Your task to perform on an android device: add a contact in the contacts app Image 0: 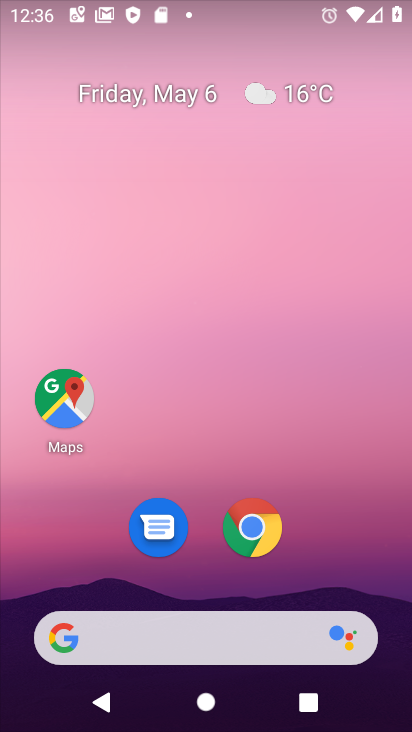
Step 0: drag from (325, 545) to (54, 113)
Your task to perform on an android device: add a contact in the contacts app Image 1: 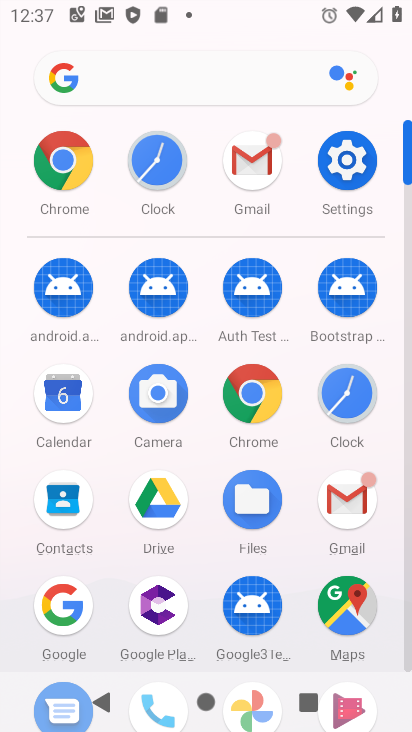
Step 1: click (70, 497)
Your task to perform on an android device: add a contact in the contacts app Image 2: 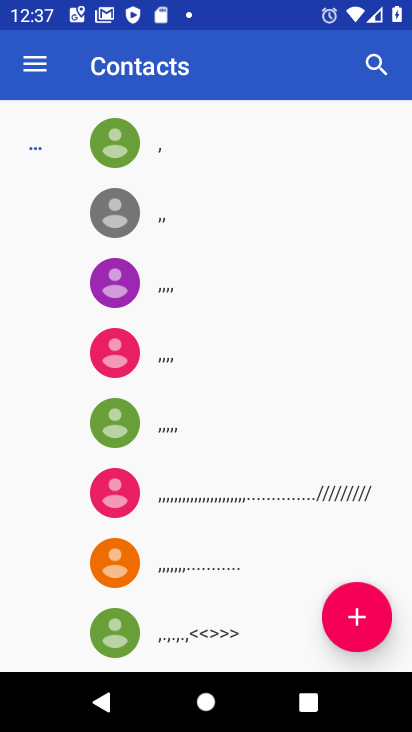
Step 2: click (356, 608)
Your task to perform on an android device: add a contact in the contacts app Image 3: 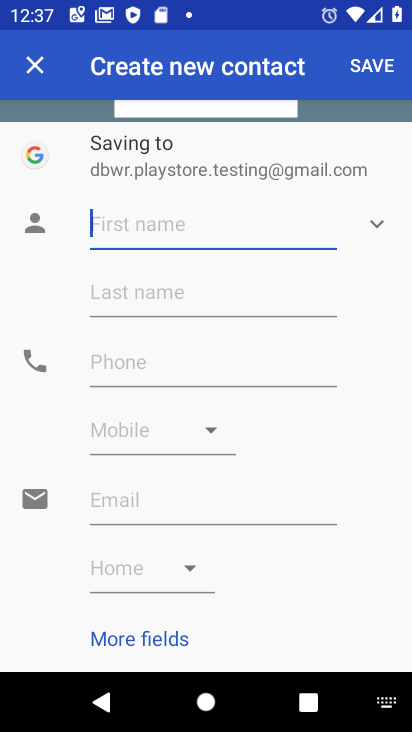
Step 3: click (145, 226)
Your task to perform on an android device: add a contact in the contacts app Image 4: 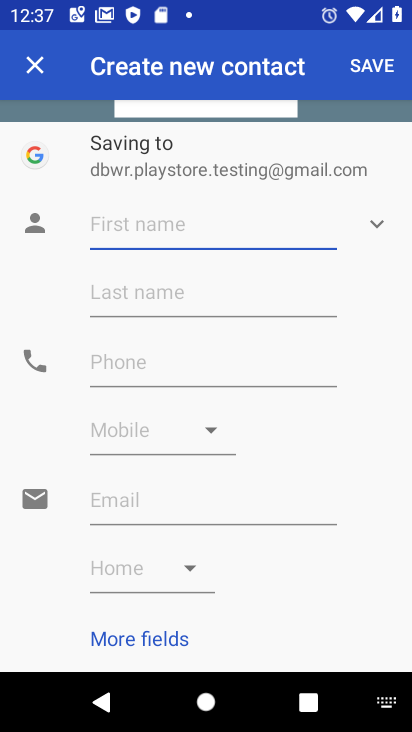
Step 4: type "miniso"
Your task to perform on an android device: add a contact in the contacts app Image 5: 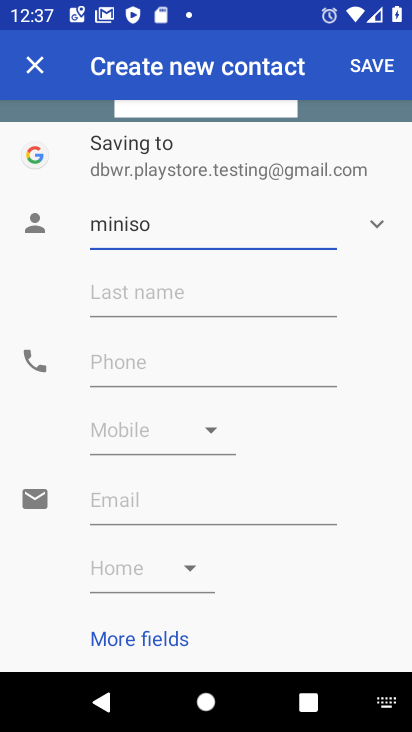
Step 5: click (135, 363)
Your task to perform on an android device: add a contact in the contacts app Image 6: 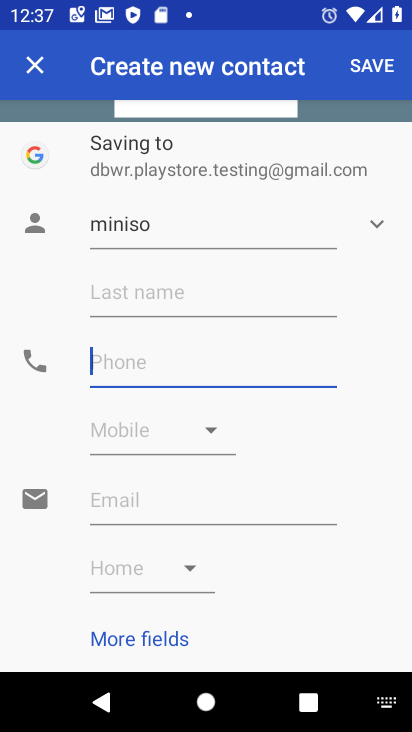
Step 6: type "0998675724"
Your task to perform on an android device: add a contact in the contacts app Image 7: 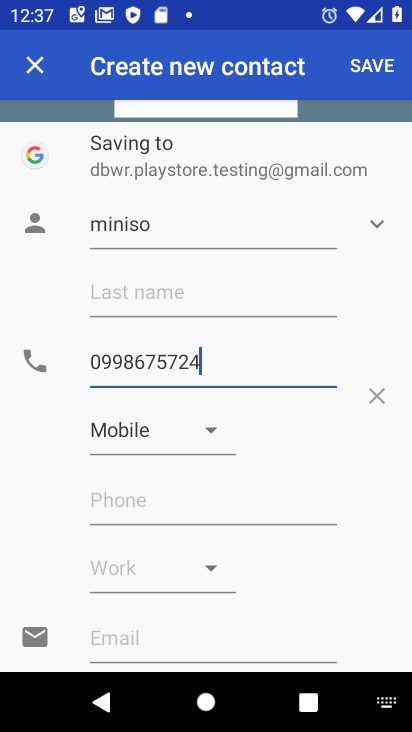
Step 7: click (372, 67)
Your task to perform on an android device: add a contact in the contacts app Image 8: 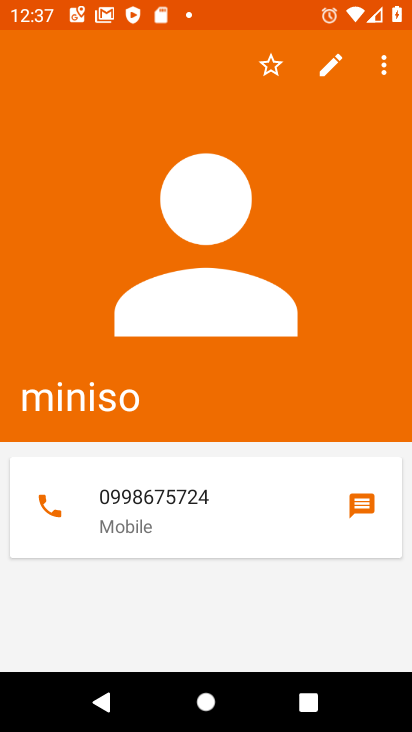
Step 8: task complete